Your task to perform on an android device: Open Yahoo.com Image 0: 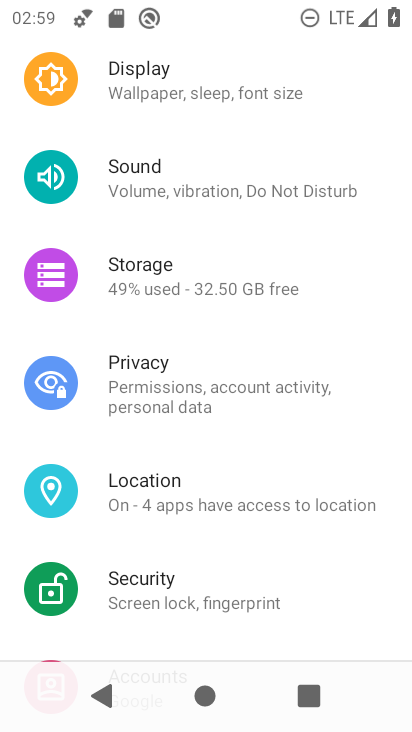
Step 0: press home button
Your task to perform on an android device: Open Yahoo.com Image 1: 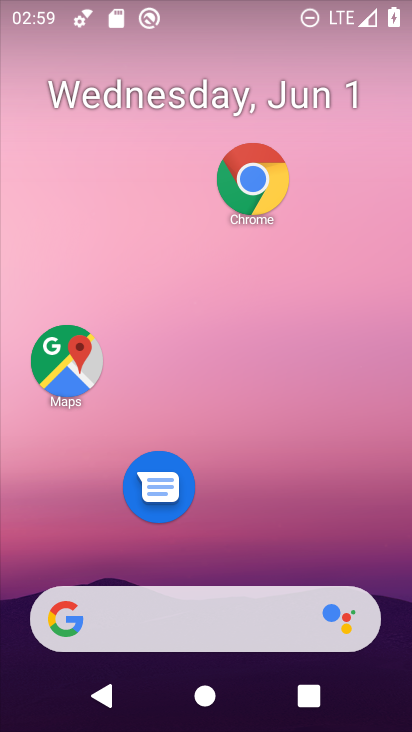
Step 1: click (256, 167)
Your task to perform on an android device: Open Yahoo.com Image 2: 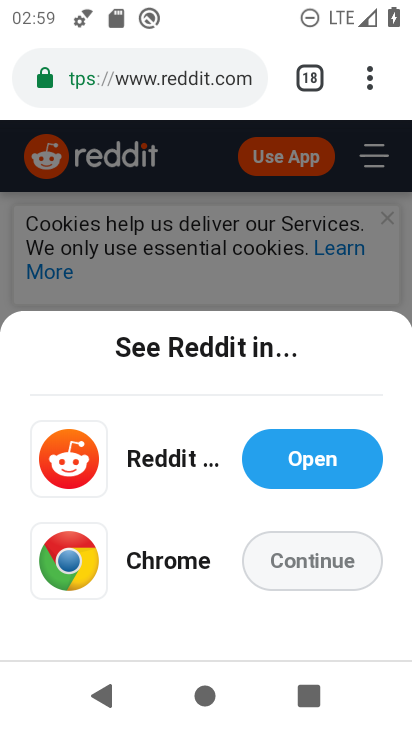
Step 2: click (365, 70)
Your task to perform on an android device: Open Yahoo.com Image 3: 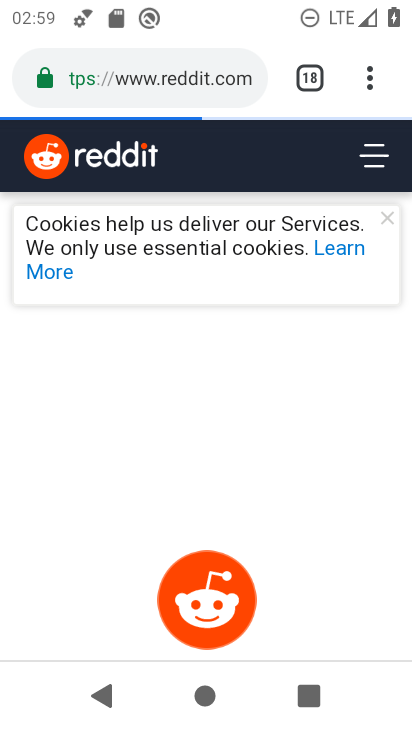
Step 3: click (349, 67)
Your task to perform on an android device: Open Yahoo.com Image 4: 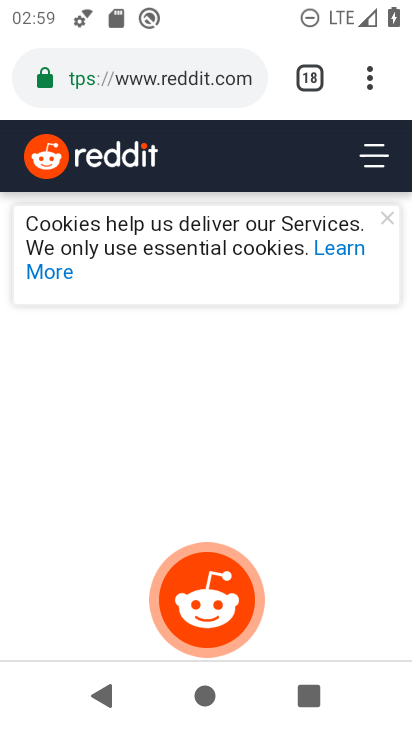
Step 4: click (364, 76)
Your task to perform on an android device: Open Yahoo.com Image 5: 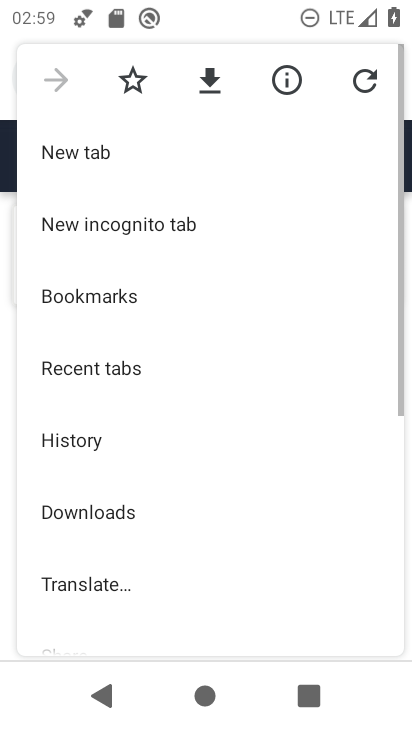
Step 5: click (108, 140)
Your task to perform on an android device: Open Yahoo.com Image 6: 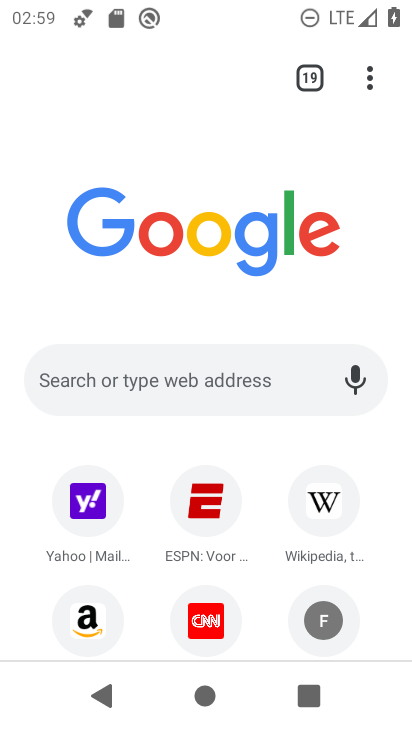
Step 6: click (82, 484)
Your task to perform on an android device: Open Yahoo.com Image 7: 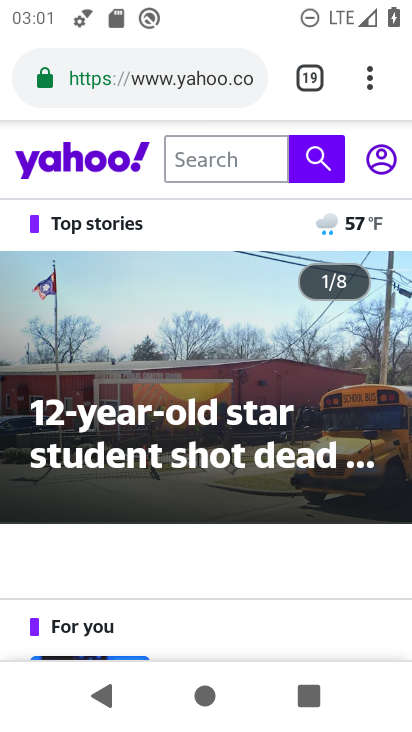
Step 7: task complete